Your task to perform on an android device: turn on notifications settings in the gmail app Image 0: 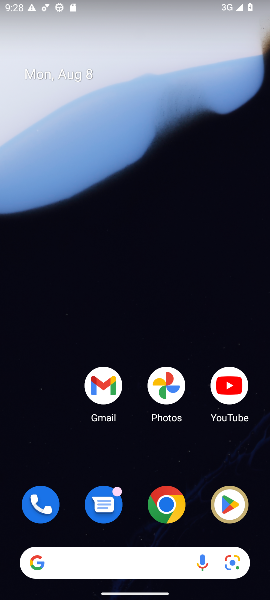
Step 0: click (111, 406)
Your task to perform on an android device: turn on notifications settings in the gmail app Image 1: 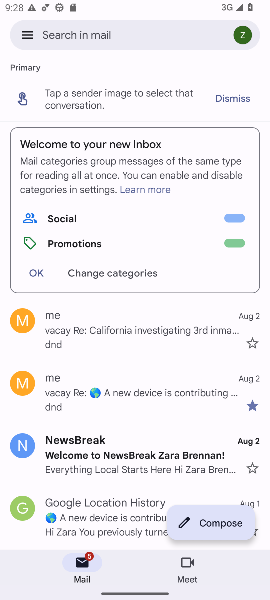
Step 1: click (22, 37)
Your task to perform on an android device: turn on notifications settings in the gmail app Image 2: 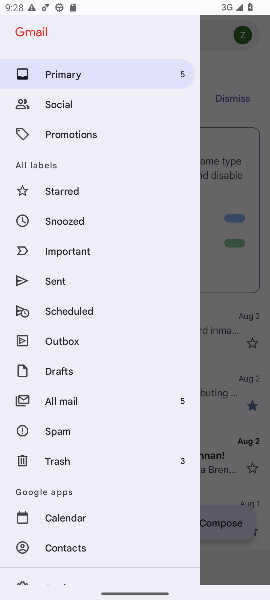
Step 2: drag from (61, 474) to (89, 188)
Your task to perform on an android device: turn on notifications settings in the gmail app Image 3: 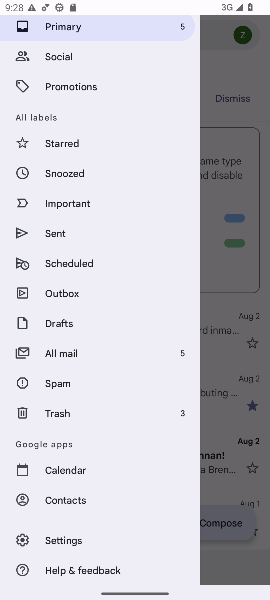
Step 3: click (60, 543)
Your task to perform on an android device: turn on notifications settings in the gmail app Image 4: 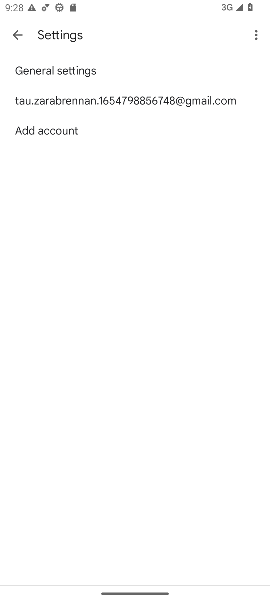
Step 4: click (78, 76)
Your task to perform on an android device: turn on notifications settings in the gmail app Image 5: 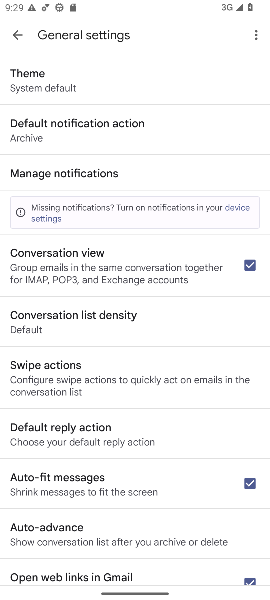
Step 5: click (20, 32)
Your task to perform on an android device: turn on notifications settings in the gmail app Image 6: 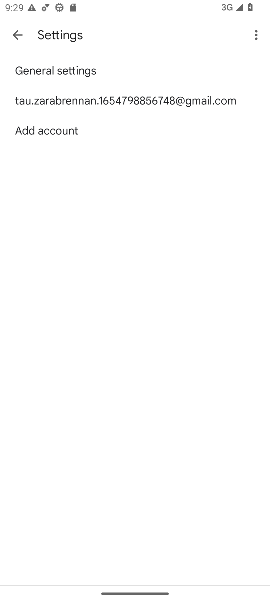
Step 6: click (70, 68)
Your task to perform on an android device: turn on notifications settings in the gmail app Image 7: 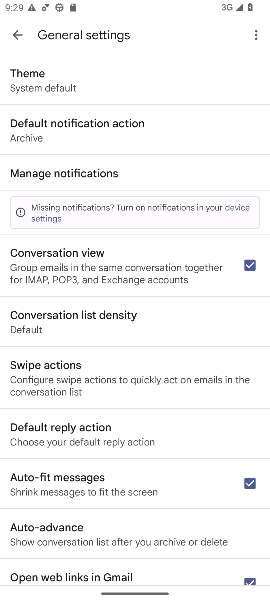
Step 7: click (79, 179)
Your task to perform on an android device: turn on notifications settings in the gmail app Image 8: 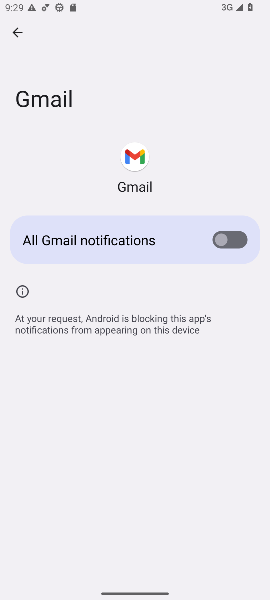
Step 8: click (242, 241)
Your task to perform on an android device: turn on notifications settings in the gmail app Image 9: 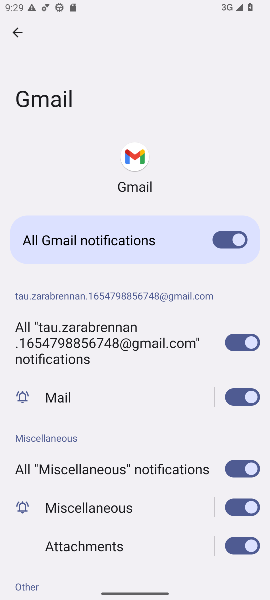
Step 9: task complete